Your task to perform on an android device: choose inbox layout in the gmail app Image 0: 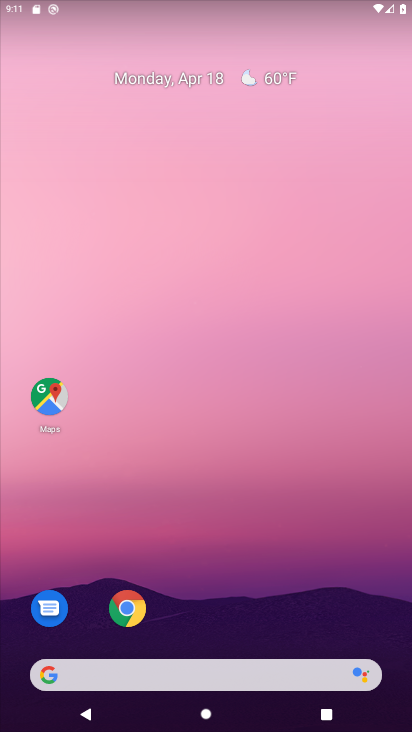
Step 0: drag from (353, 593) to (307, 118)
Your task to perform on an android device: choose inbox layout in the gmail app Image 1: 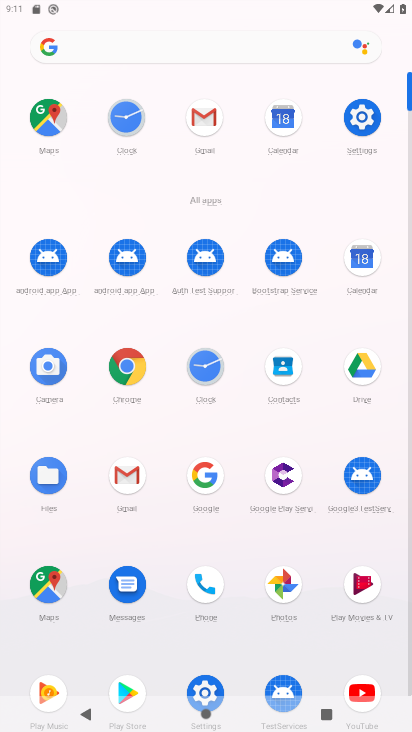
Step 1: click (124, 478)
Your task to perform on an android device: choose inbox layout in the gmail app Image 2: 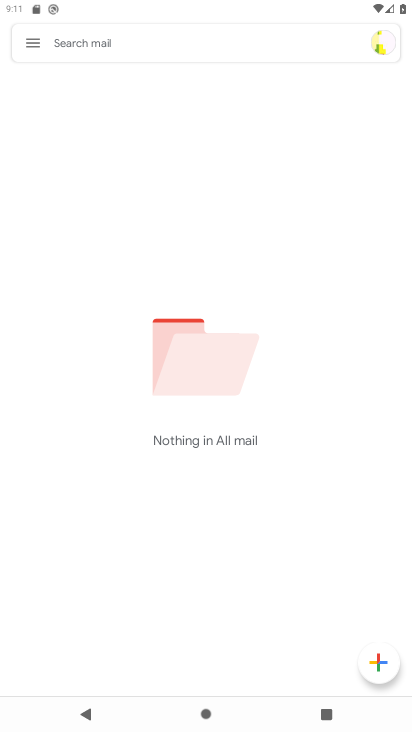
Step 2: click (36, 50)
Your task to perform on an android device: choose inbox layout in the gmail app Image 3: 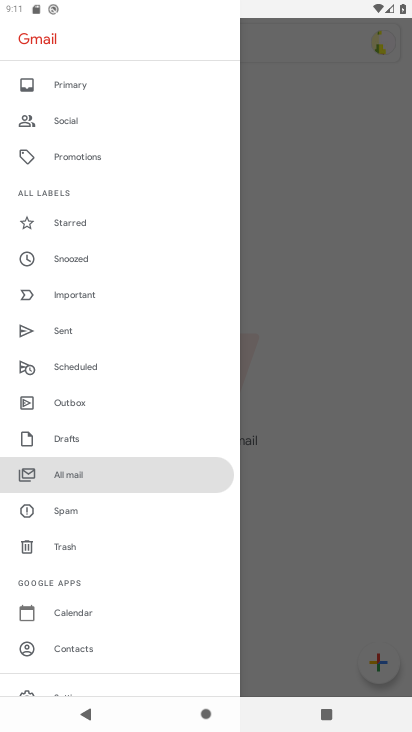
Step 3: drag from (184, 653) to (271, 288)
Your task to perform on an android device: choose inbox layout in the gmail app Image 4: 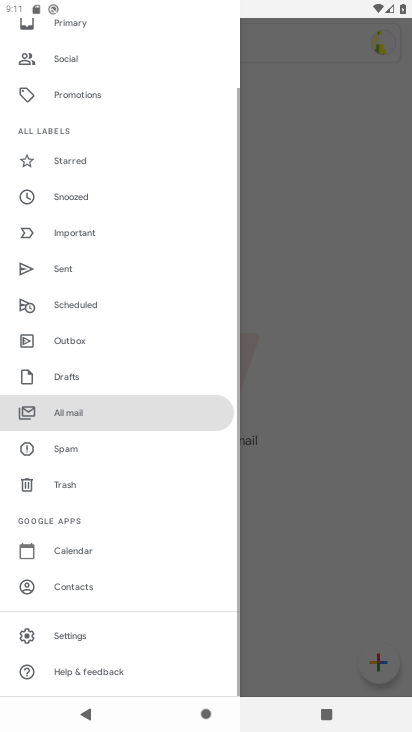
Step 4: click (74, 633)
Your task to perform on an android device: choose inbox layout in the gmail app Image 5: 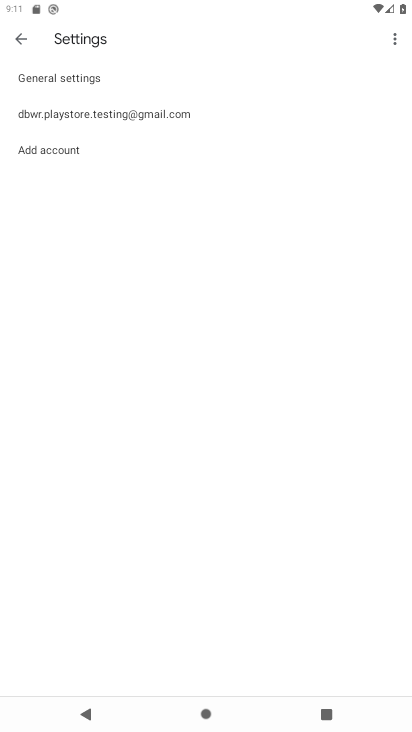
Step 5: click (139, 114)
Your task to perform on an android device: choose inbox layout in the gmail app Image 6: 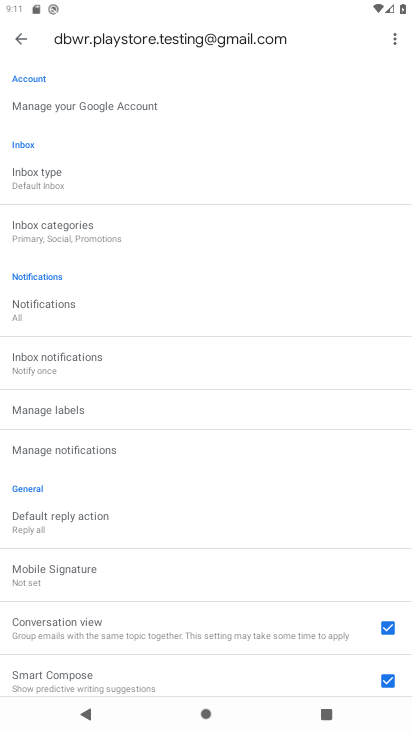
Step 6: click (53, 182)
Your task to perform on an android device: choose inbox layout in the gmail app Image 7: 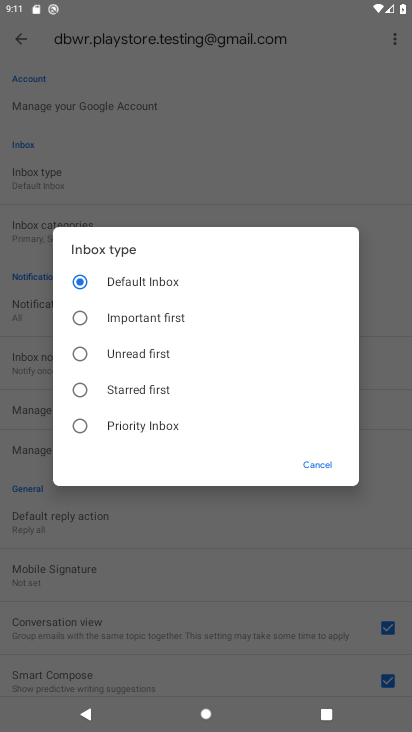
Step 7: click (116, 312)
Your task to perform on an android device: choose inbox layout in the gmail app Image 8: 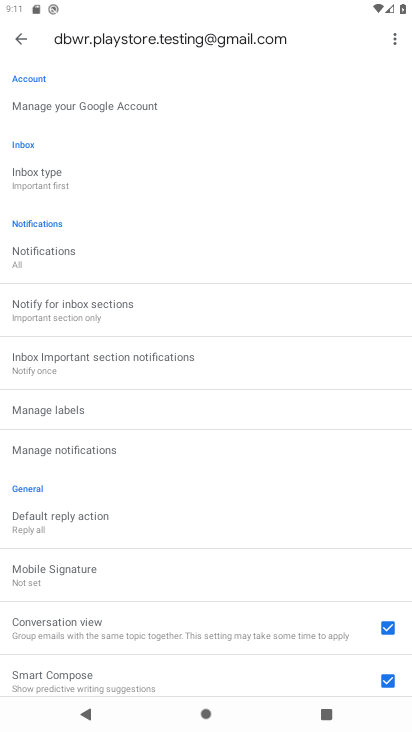
Step 8: task complete